Your task to perform on an android device: Search for pizza restaurants on Maps Image 0: 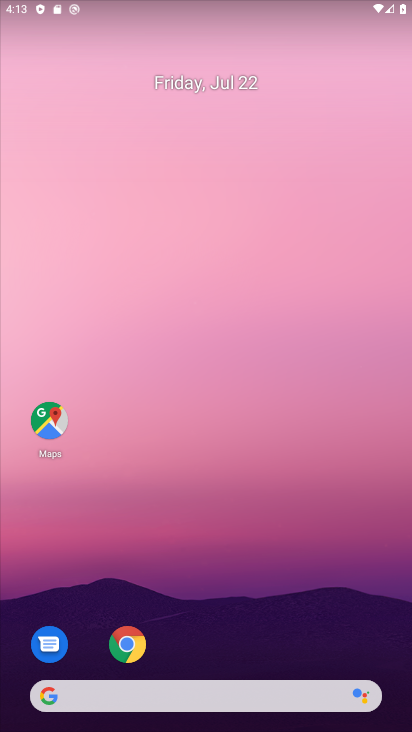
Step 0: click (48, 424)
Your task to perform on an android device: Search for pizza restaurants on Maps Image 1: 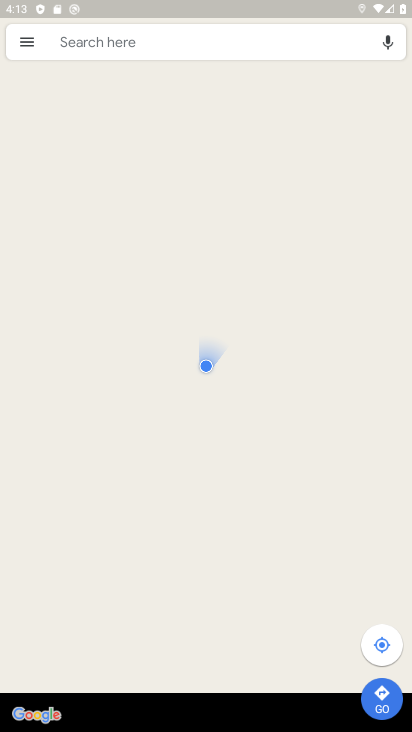
Step 1: click (189, 42)
Your task to perform on an android device: Search for pizza restaurants on Maps Image 2: 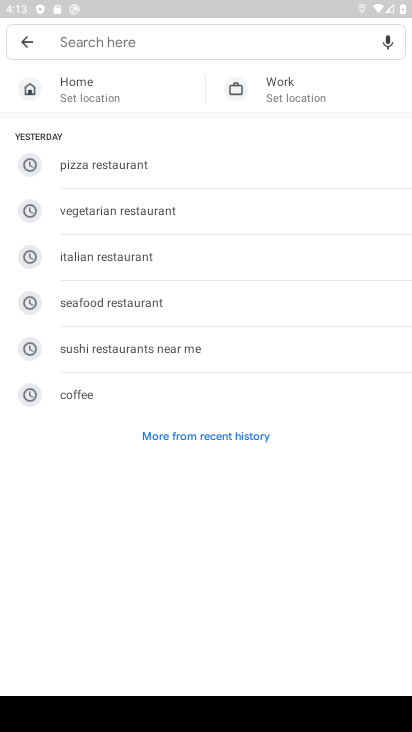
Step 2: click (102, 160)
Your task to perform on an android device: Search for pizza restaurants on Maps Image 3: 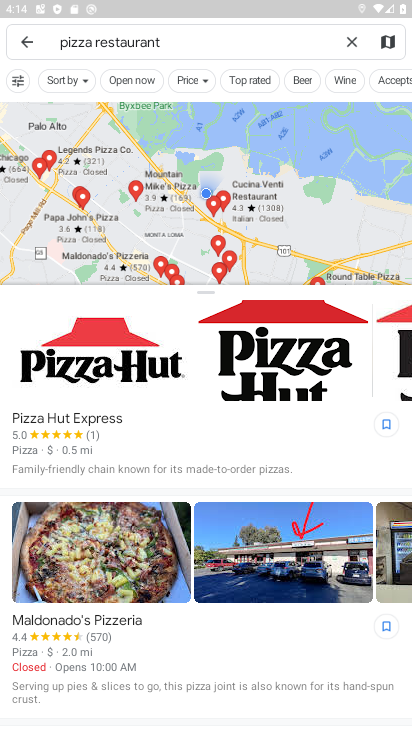
Step 3: task complete